Your task to perform on an android device: Open Google Chrome Image 0: 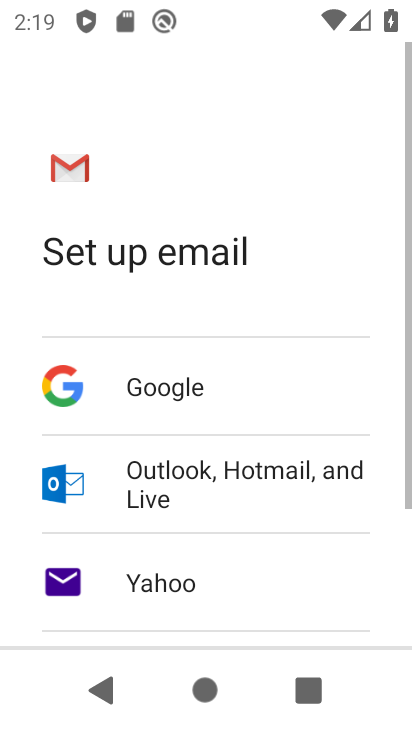
Step 0: press home button
Your task to perform on an android device: Open Google Chrome Image 1: 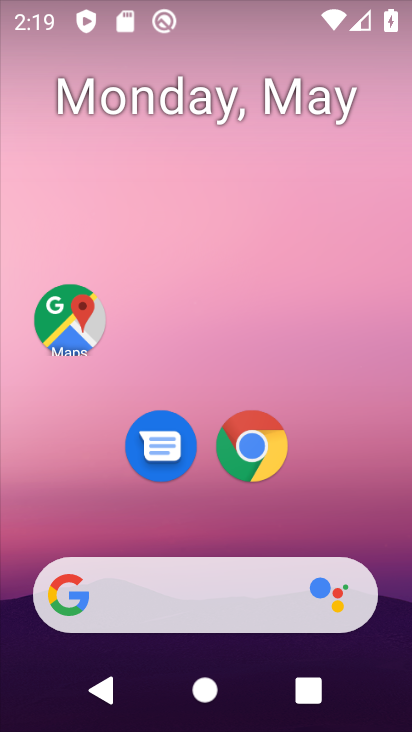
Step 1: click (269, 437)
Your task to perform on an android device: Open Google Chrome Image 2: 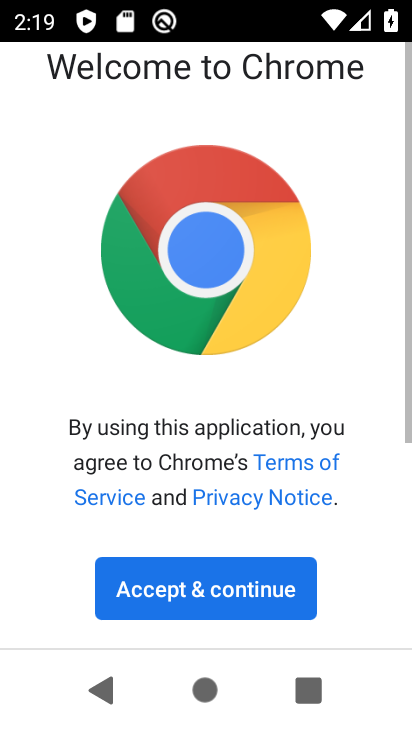
Step 2: click (179, 559)
Your task to perform on an android device: Open Google Chrome Image 3: 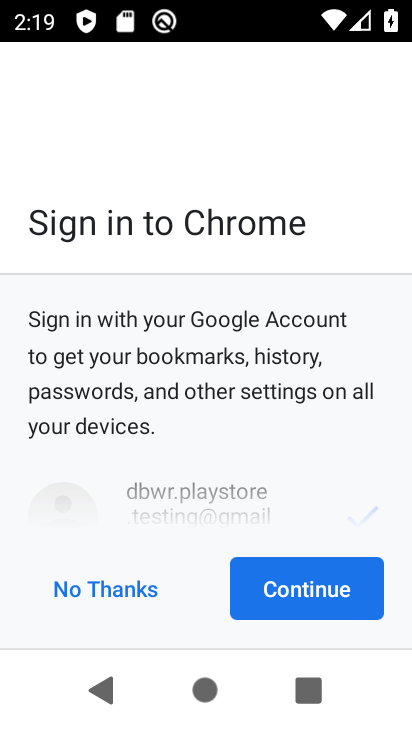
Step 3: click (292, 577)
Your task to perform on an android device: Open Google Chrome Image 4: 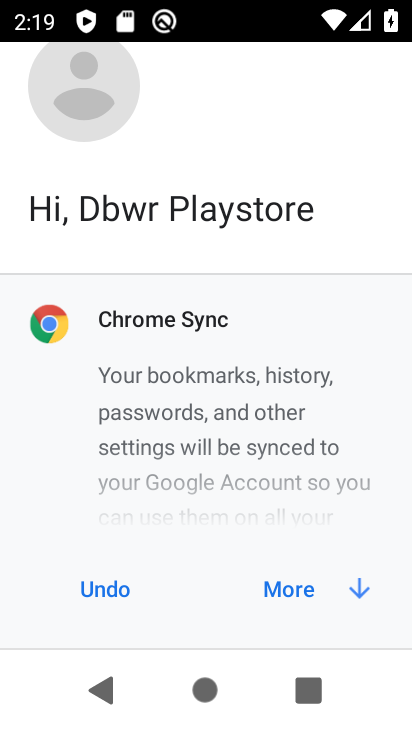
Step 4: click (268, 578)
Your task to perform on an android device: Open Google Chrome Image 5: 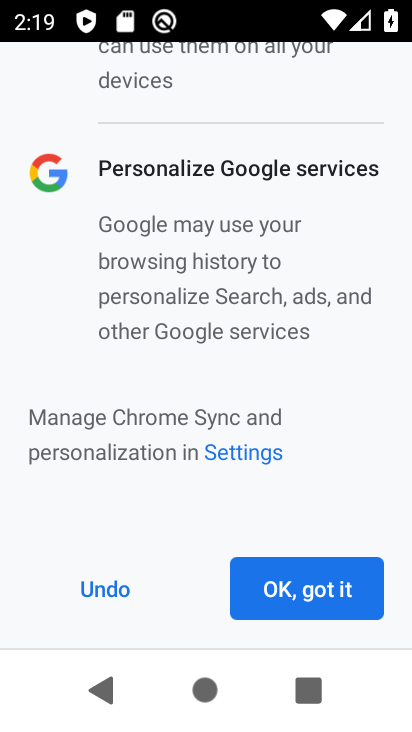
Step 5: click (268, 578)
Your task to perform on an android device: Open Google Chrome Image 6: 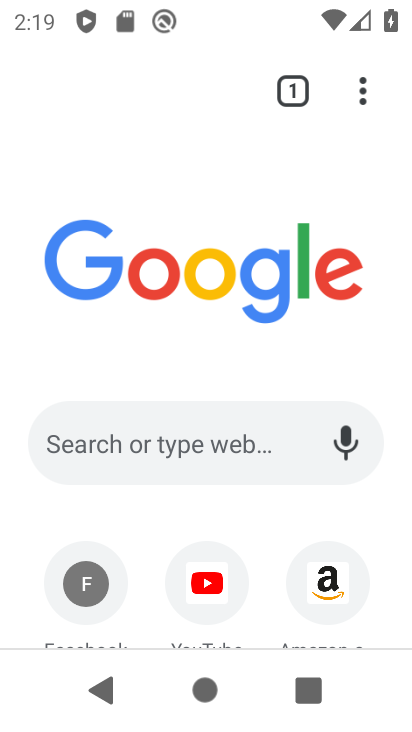
Step 6: task complete